Your task to perform on an android device: turn off location history Image 0: 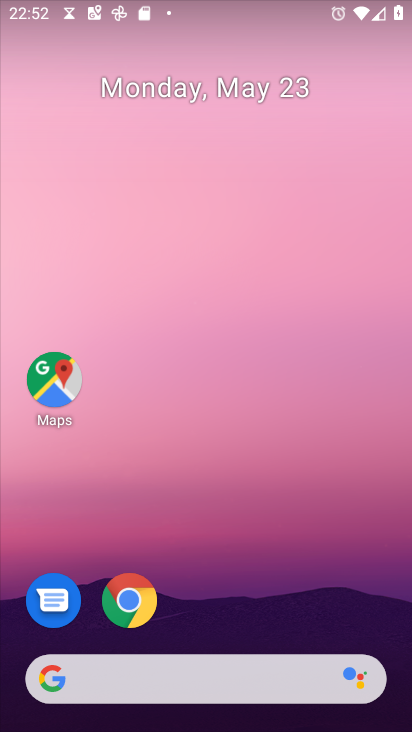
Step 0: drag from (207, 696) to (208, 133)
Your task to perform on an android device: turn off location history Image 1: 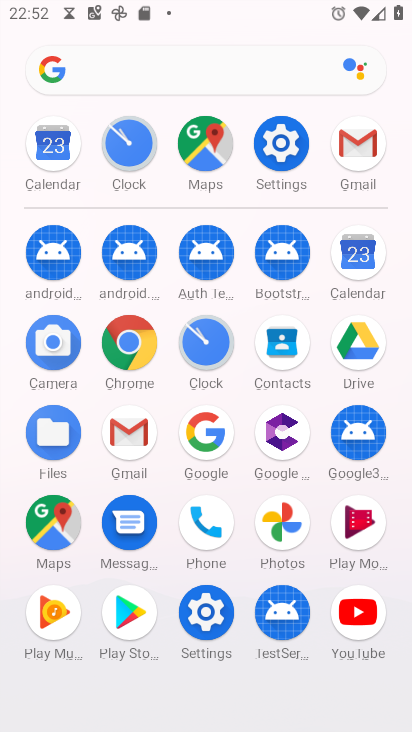
Step 1: click (276, 131)
Your task to perform on an android device: turn off location history Image 2: 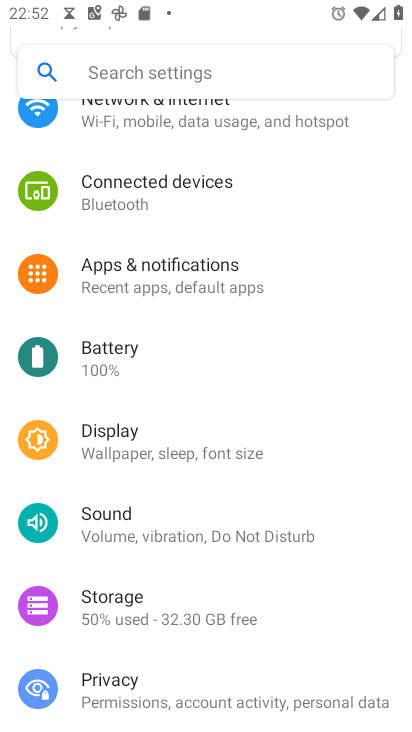
Step 2: drag from (193, 235) to (235, 498)
Your task to perform on an android device: turn off location history Image 3: 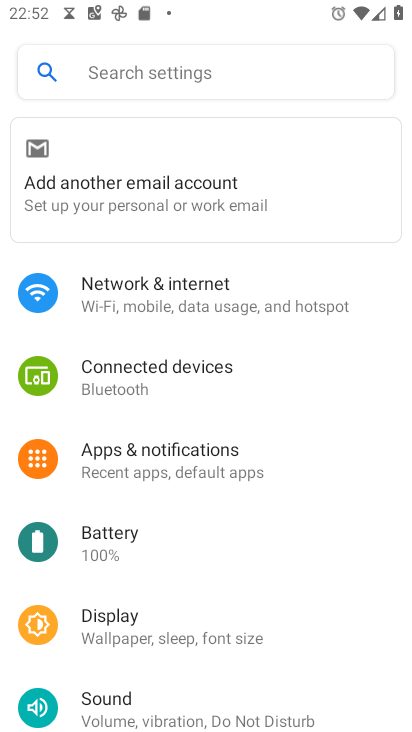
Step 3: drag from (184, 665) to (171, 283)
Your task to perform on an android device: turn off location history Image 4: 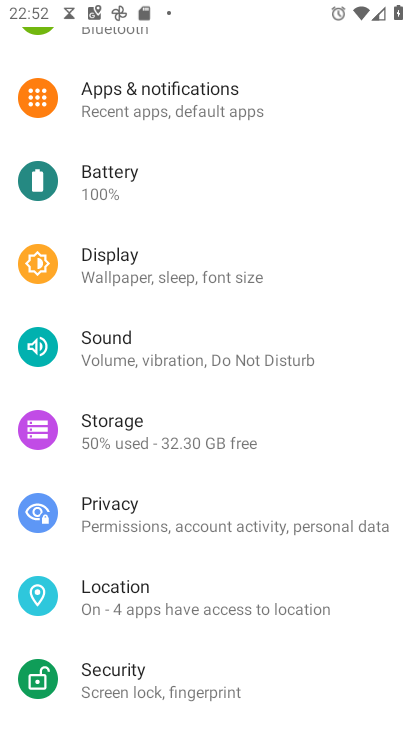
Step 4: click (137, 598)
Your task to perform on an android device: turn off location history Image 5: 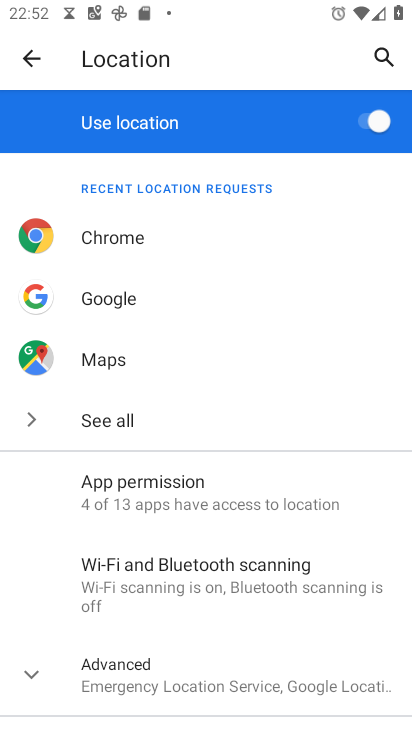
Step 5: drag from (187, 682) to (181, 419)
Your task to perform on an android device: turn off location history Image 6: 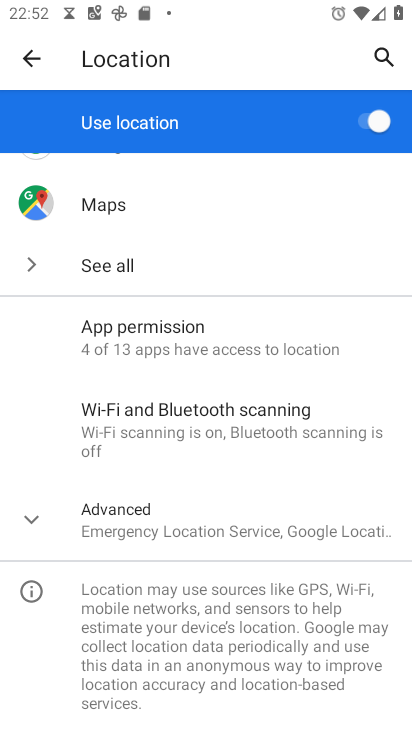
Step 6: click (130, 524)
Your task to perform on an android device: turn off location history Image 7: 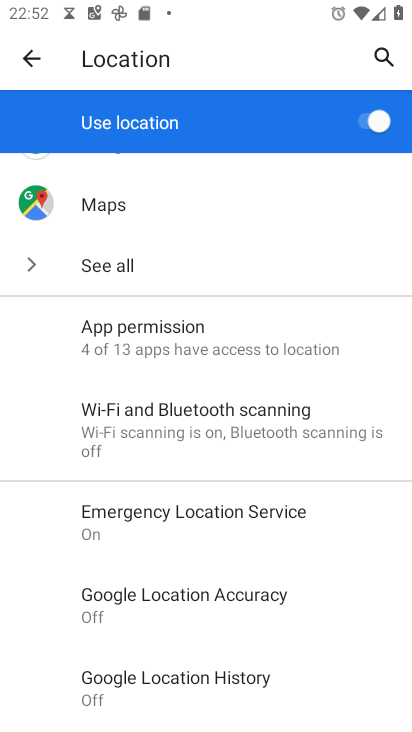
Step 7: click (182, 679)
Your task to perform on an android device: turn off location history Image 8: 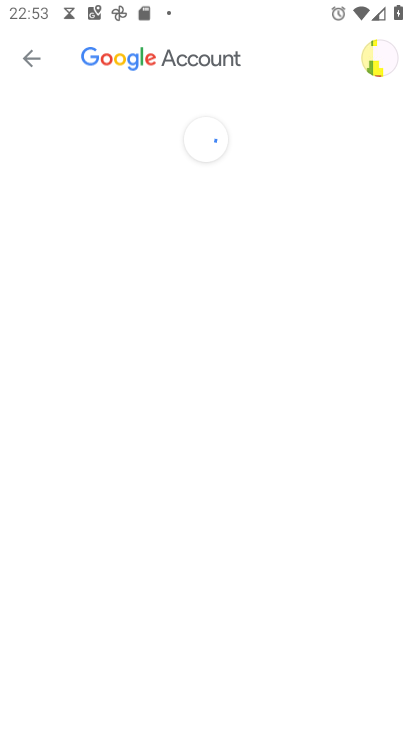
Step 8: drag from (272, 691) to (274, 376)
Your task to perform on an android device: turn off location history Image 9: 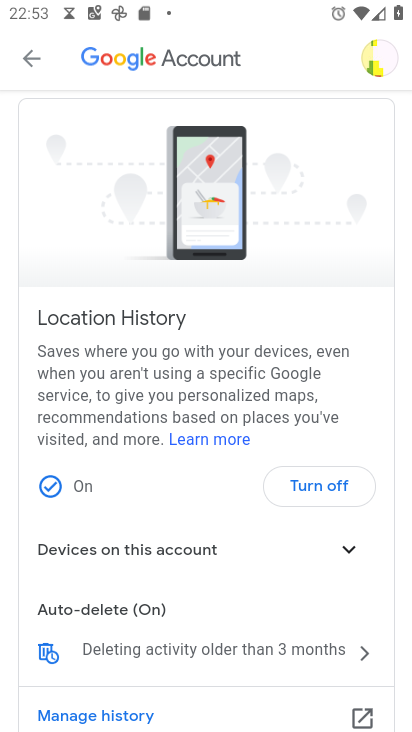
Step 9: click (337, 477)
Your task to perform on an android device: turn off location history Image 10: 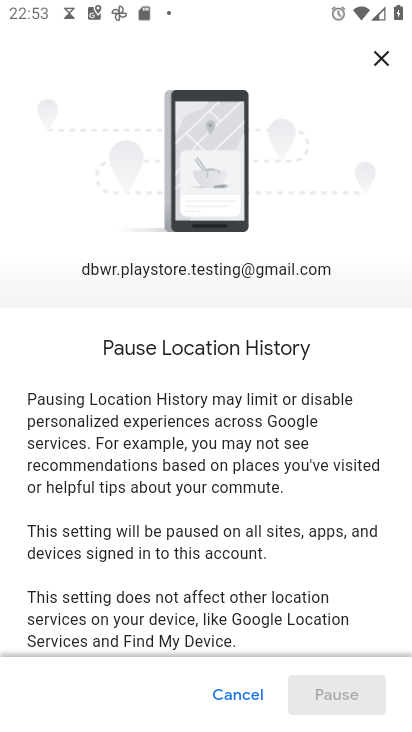
Step 10: drag from (252, 628) to (249, 280)
Your task to perform on an android device: turn off location history Image 11: 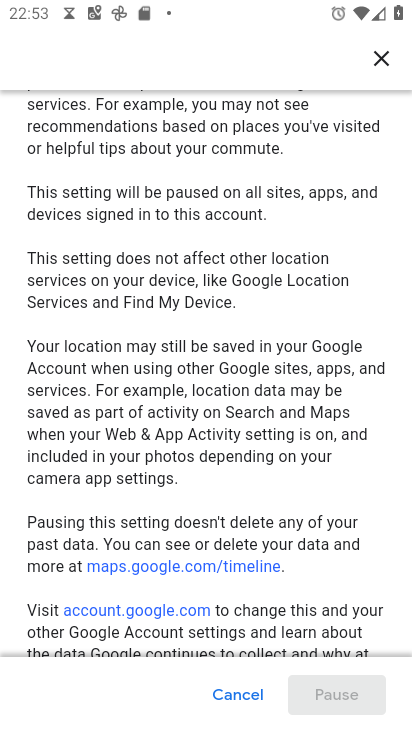
Step 11: drag from (258, 589) to (253, 220)
Your task to perform on an android device: turn off location history Image 12: 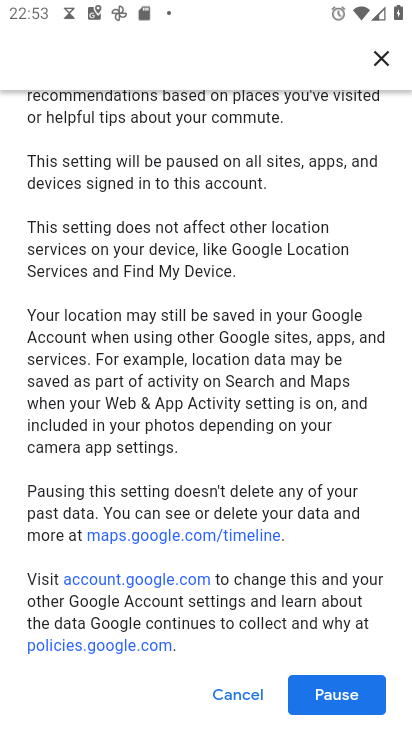
Step 12: click (343, 701)
Your task to perform on an android device: turn off location history Image 13: 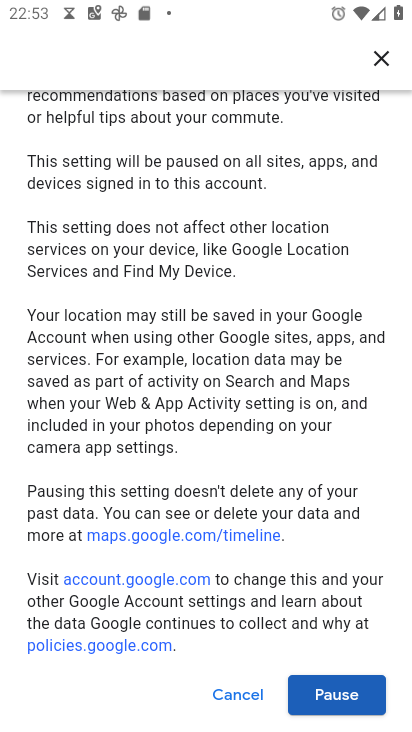
Step 13: click (338, 694)
Your task to perform on an android device: turn off location history Image 14: 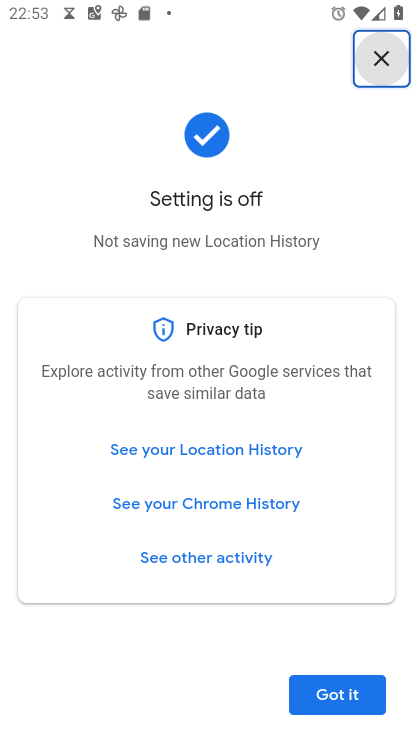
Step 14: click (338, 694)
Your task to perform on an android device: turn off location history Image 15: 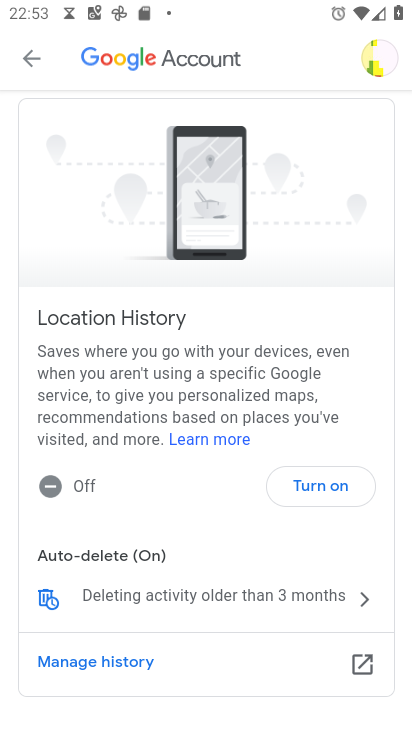
Step 15: task complete